Your task to perform on an android device: toggle notification dots Image 0: 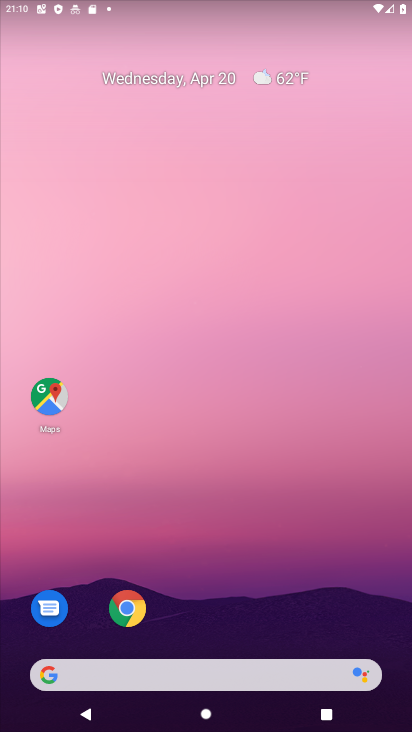
Step 0: drag from (278, 572) to (256, 53)
Your task to perform on an android device: toggle notification dots Image 1: 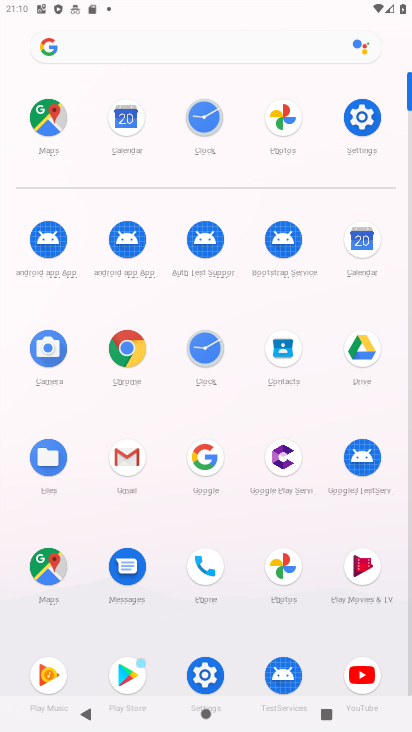
Step 1: click (206, 672)
Your task to perform on an android device: toggle notification dots Image 2: 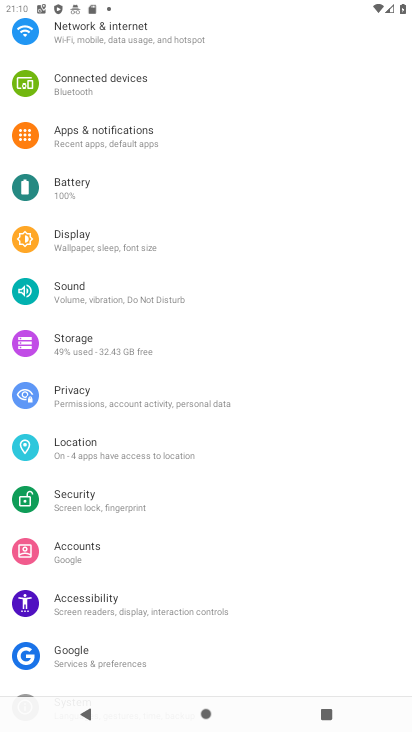
Step 2: click (150, 129)
Your task to perform on an android device: toggle notification dots Image 3: 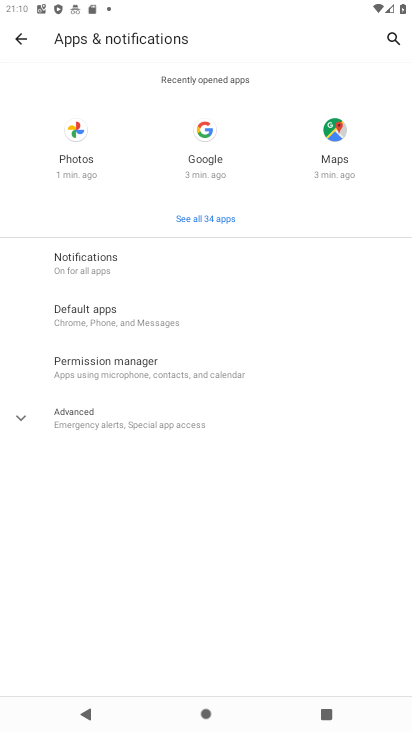
Step 3: click (133, 270)
Your task to perform on an android device: toggle notification dots Image 4: 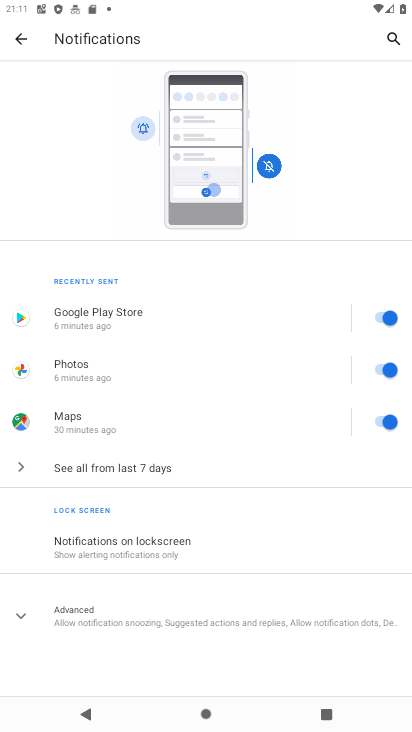
Step 4: drag from (199, 665) to (204, 502)
Your task to perform on an android device: toggle notification dots Image 5: 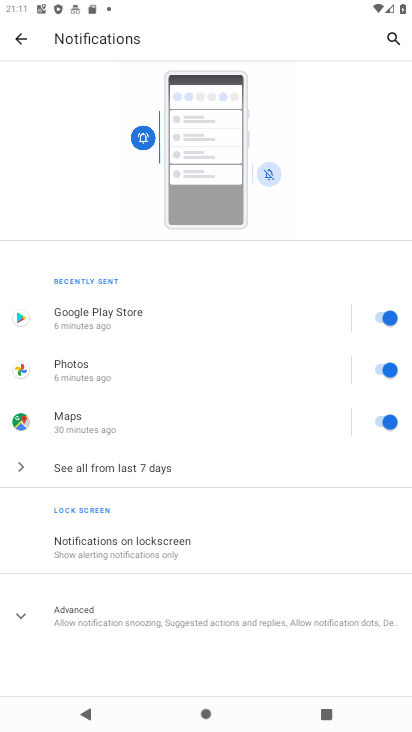
Step 5: click (201, 627)
Your task to perform on an android device: toggle notification dots Image 6: 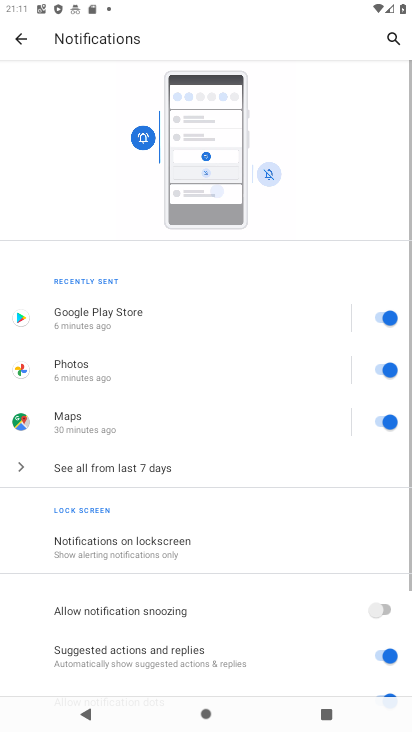
Step 6: drag from (221, 653) to (231, 340)
Your task to perform on an android device: toggle notification dots Image 7: 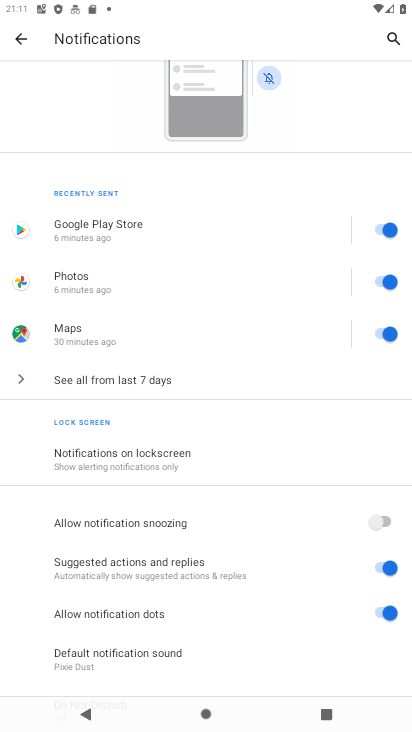
Step 7: click (375, 611)
Your task to perform on an android device: toggle notification dots Image 8: 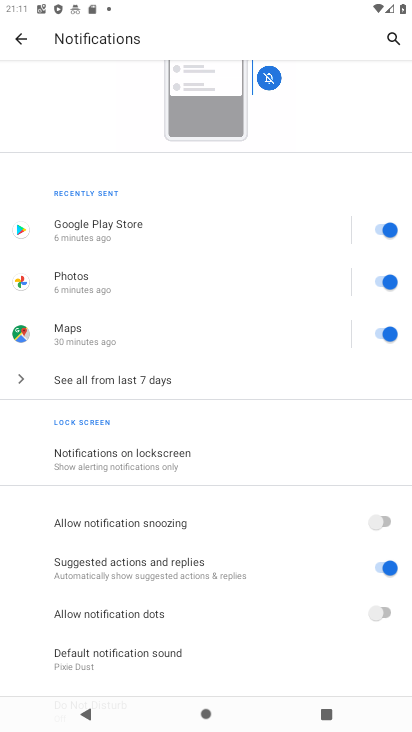
Step 8: task complete